Your task to perform on an android device: What's on the menu at McDonalds? Image 0: 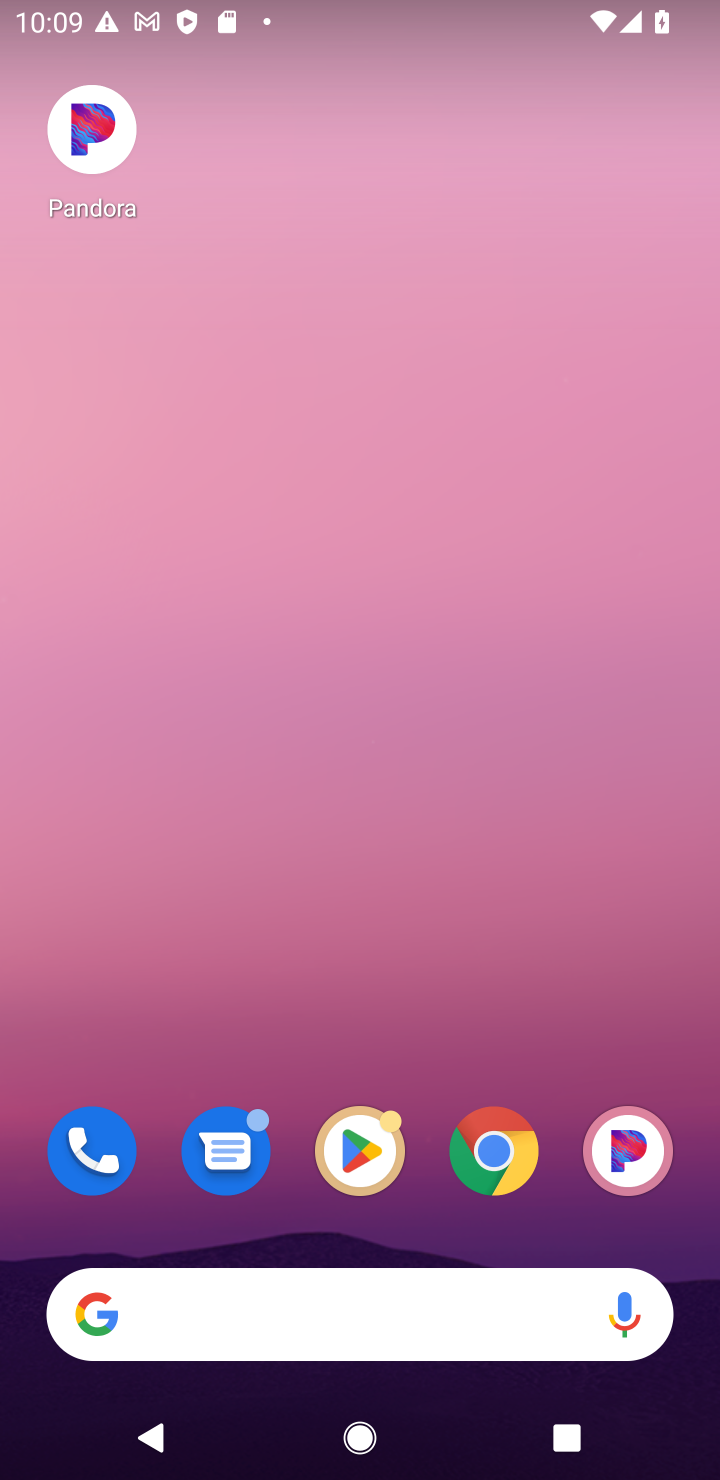
Step 0: click (487, 1174)
Your task to perform on an android device: What's on the menu at McDonalds? Image 1: 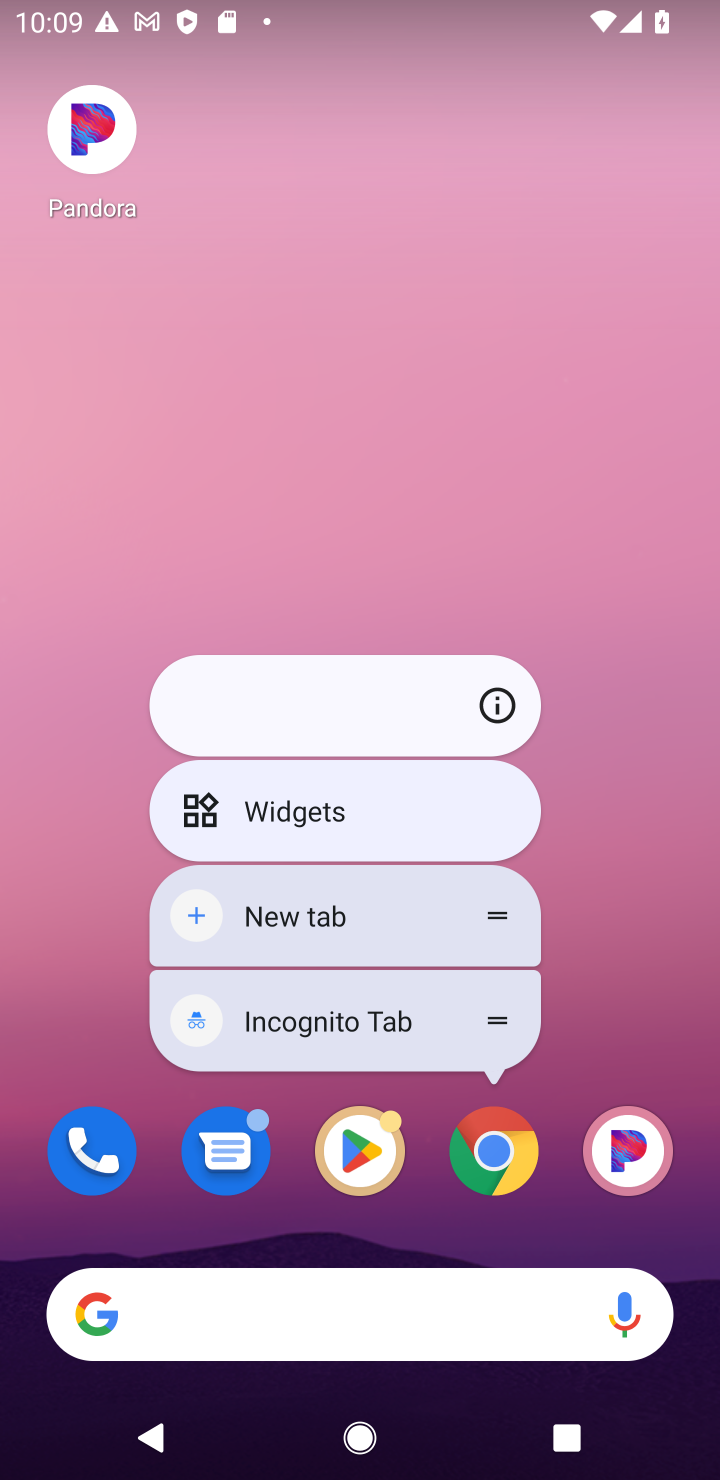
Step 1: click (479, 1131)
Your task to perform on an android device: What's on the menu at McDonalds? Image 2: 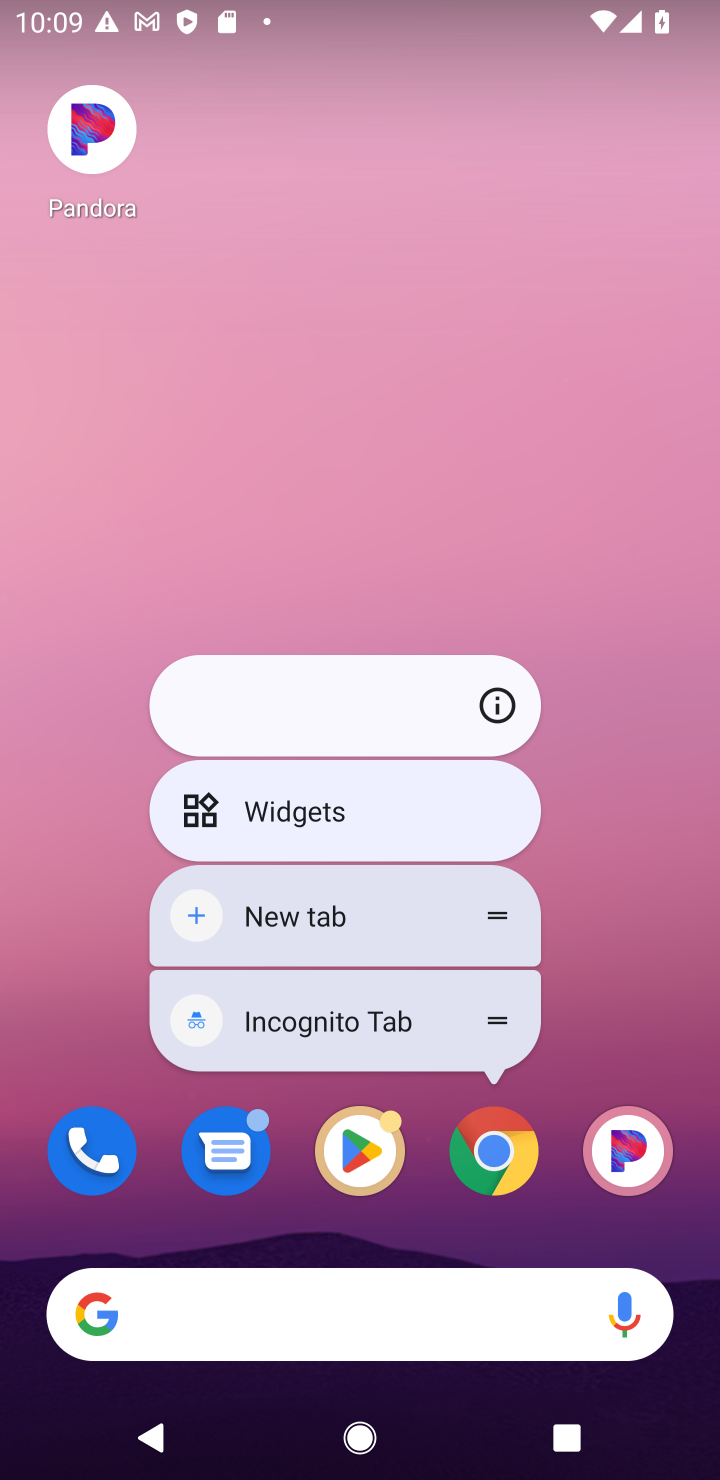
Step 2: click (482, 1140)
Your task to perform on an android device: What's on the menu at McDonalds? Image 3: 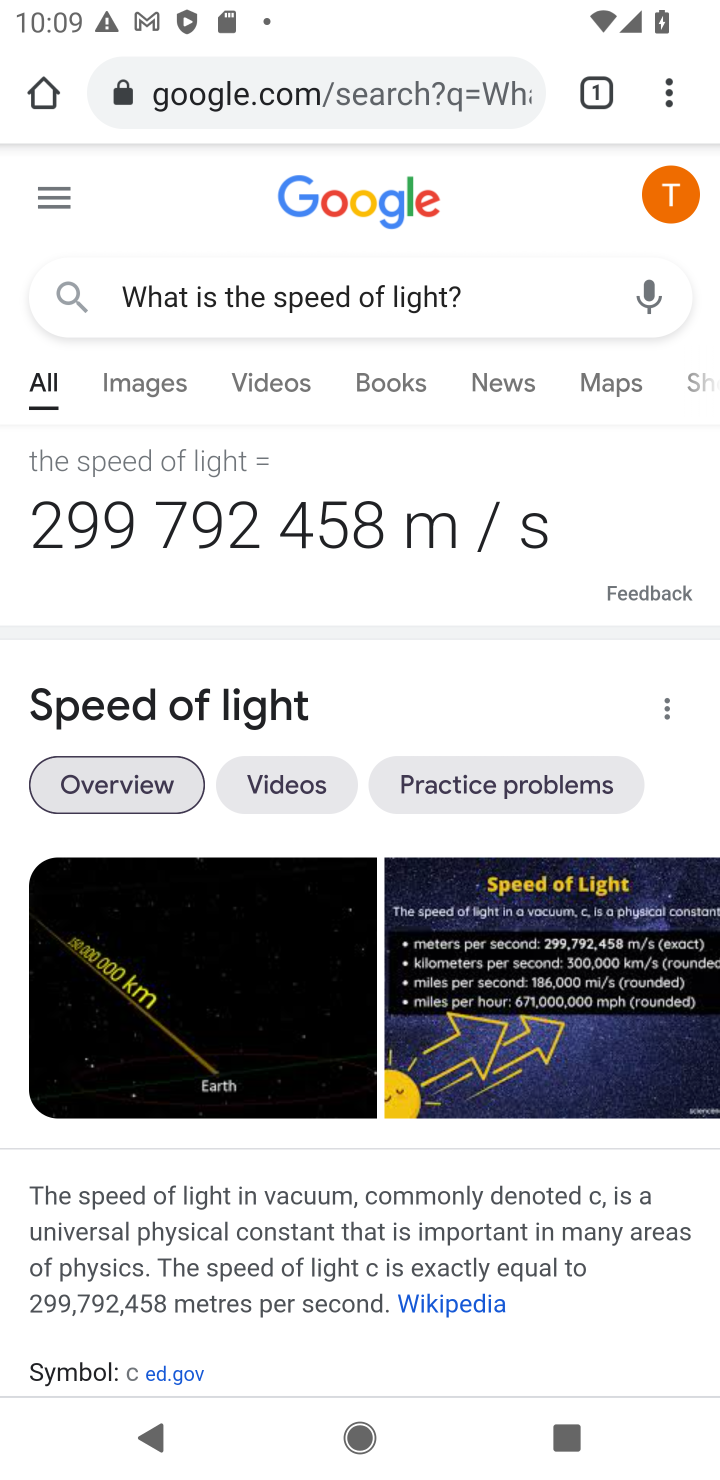
Step 3: click (251, 96)
Your task to perform on an android device: What's on the menu at McDonalds? Image 4: 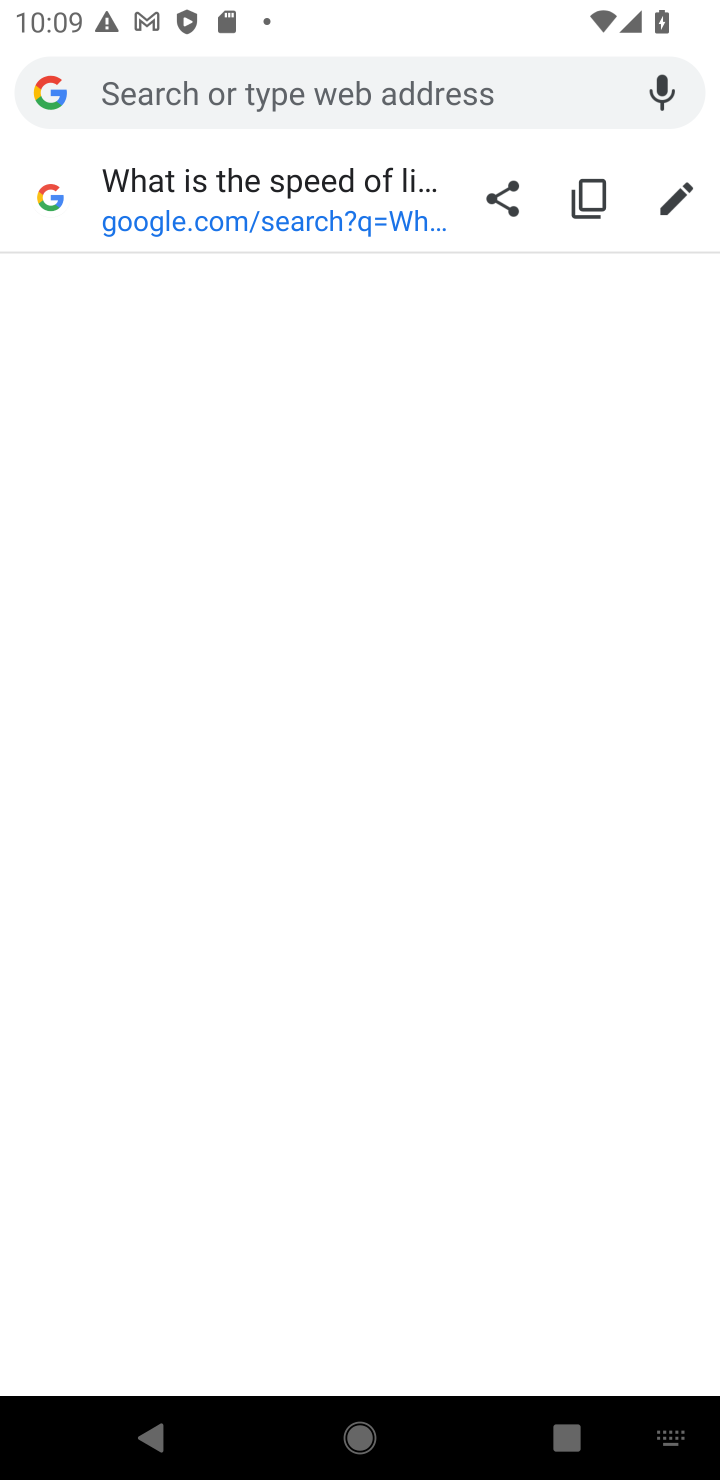
Step 4: type "What's on the menu at McDonalds?"
Your task to perform on an android device: What's on the menu at McDonalds? Image 5: 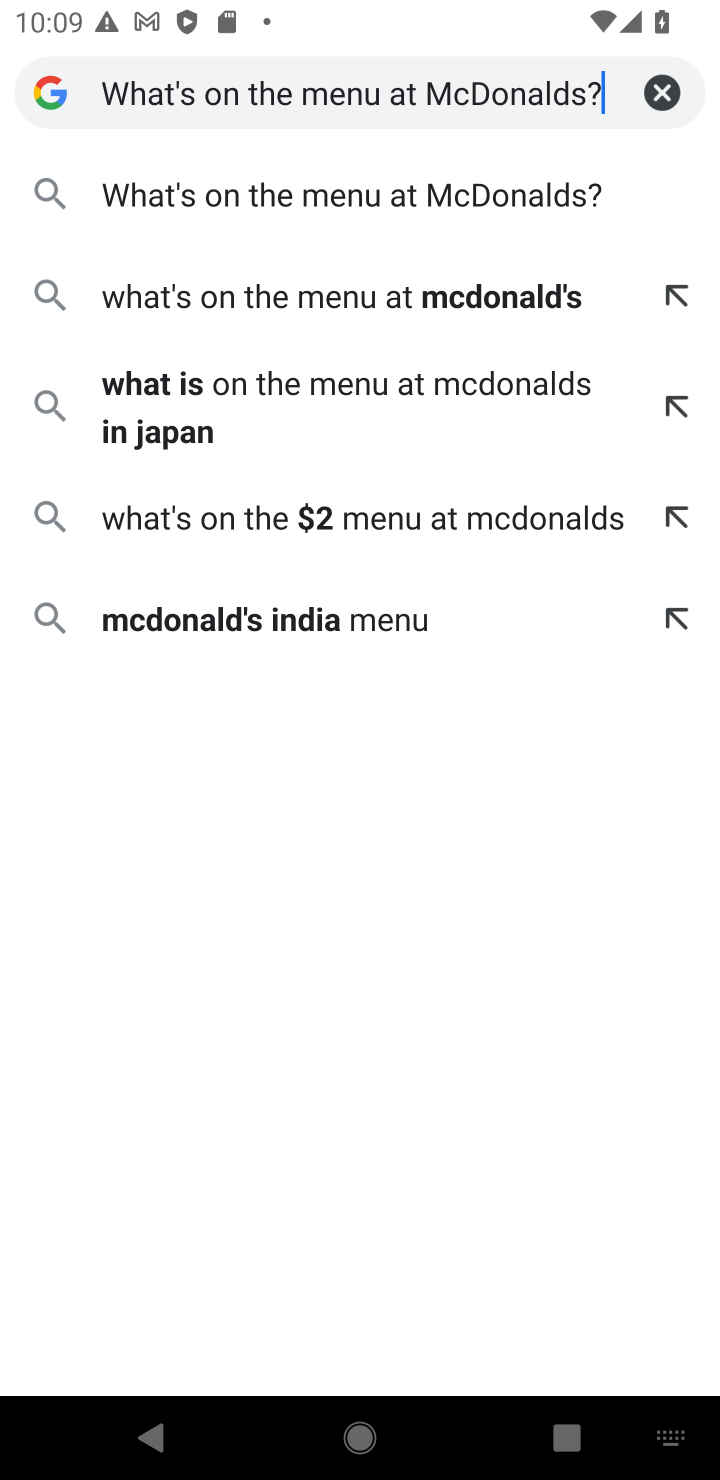
Step 5: click (260, 181)
Your task to perform on an android device: What's on the menu at McDonalds? Image 6: 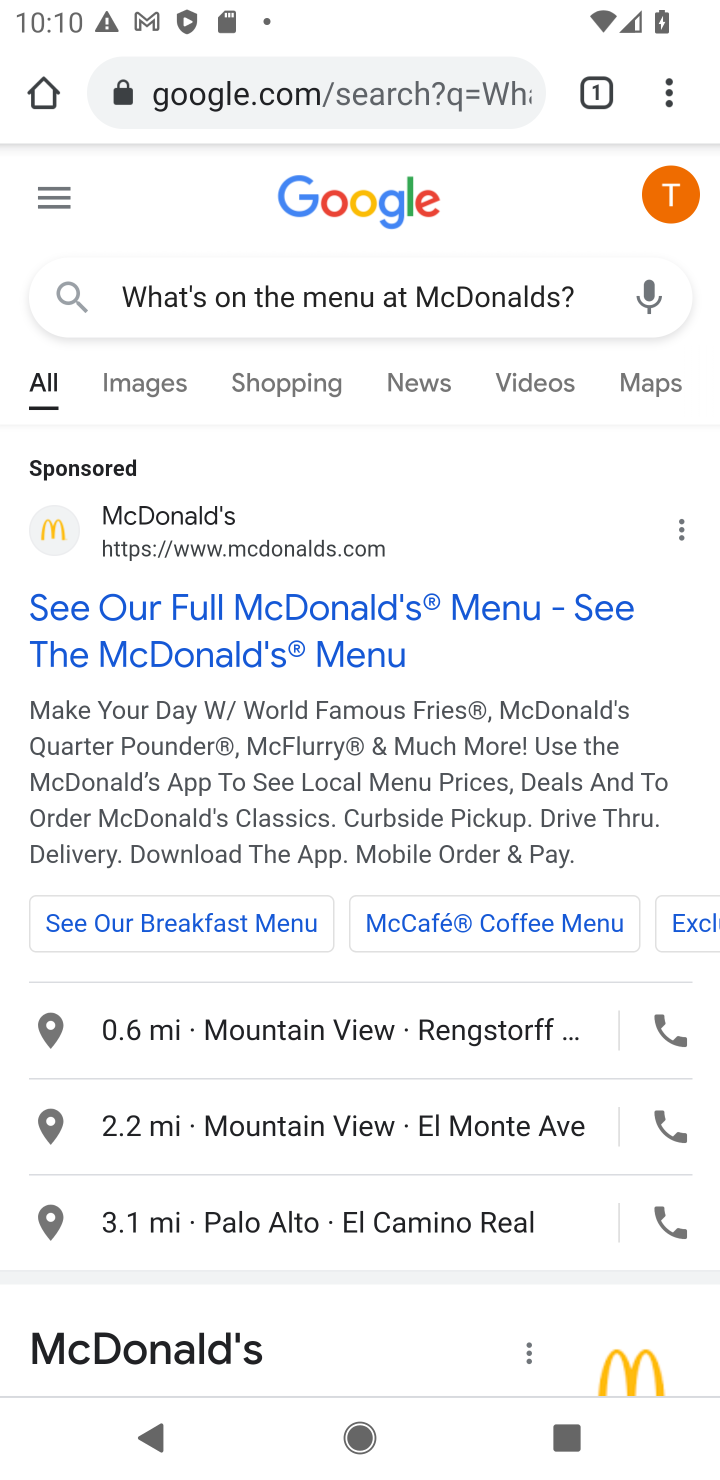
Step 6: click (316, 617)
Your task to perform on an android device: What's on the menu at McDonalds? Image 7: 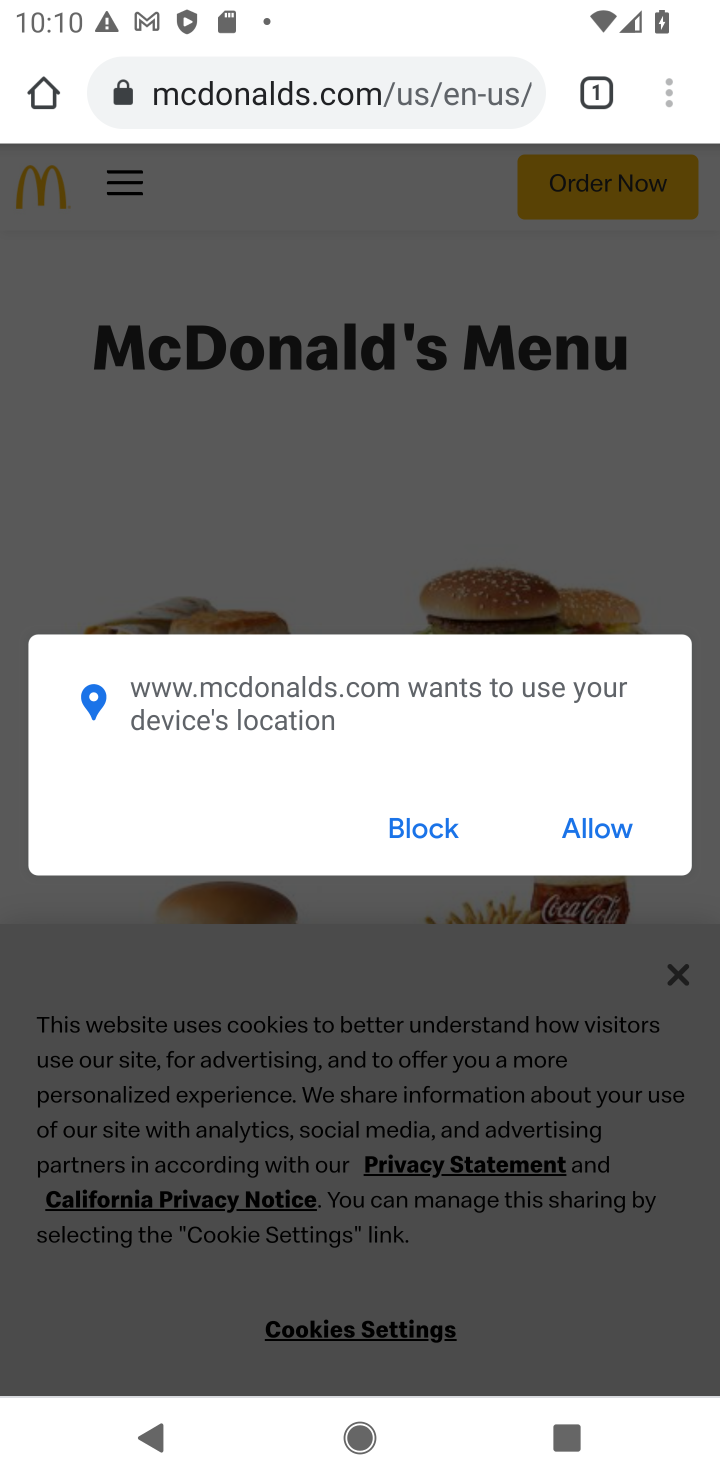
Step 7: click (573, 830)
Your task to perform on an android device: What's on the menu at McDonalds? Image 8: 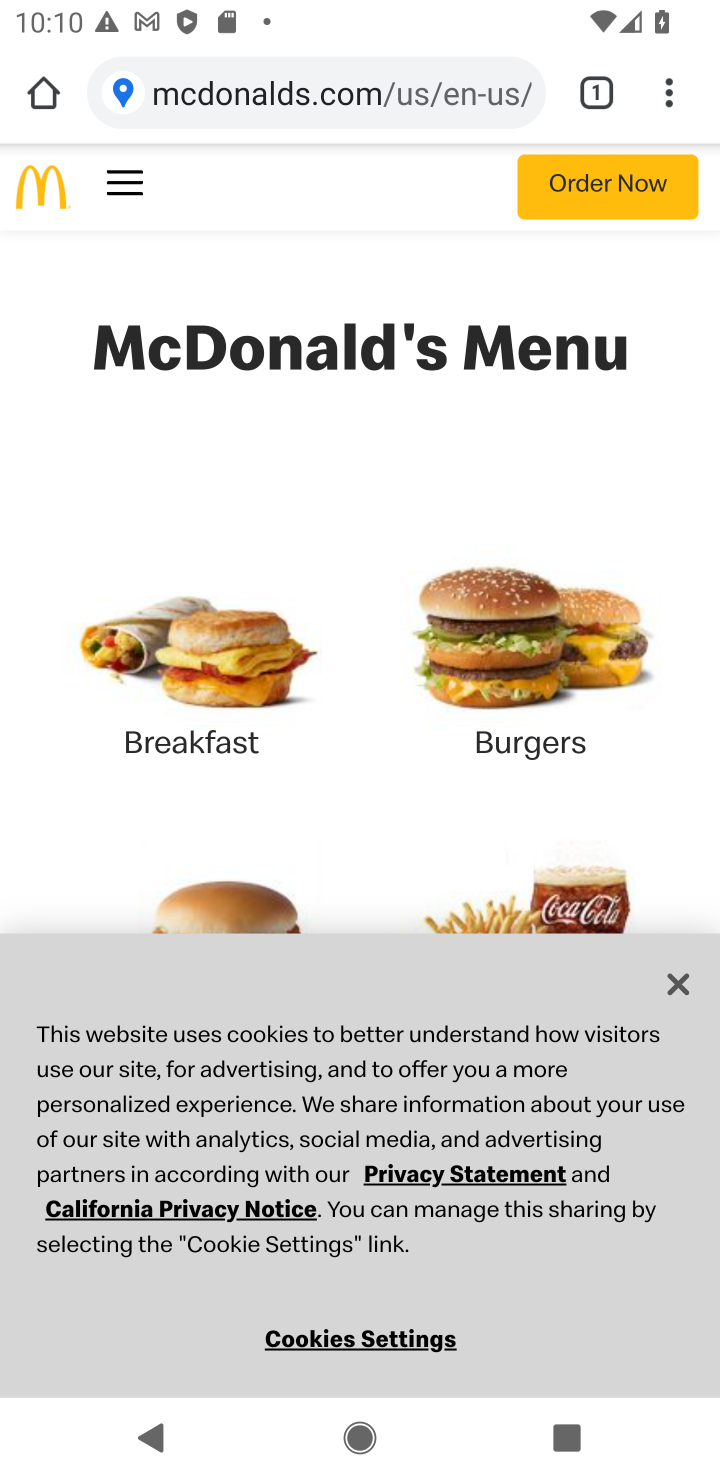
Step 8: click (669, 952)
Your task to perform on an android device: What's on the menu at McDonalds? Image 9: 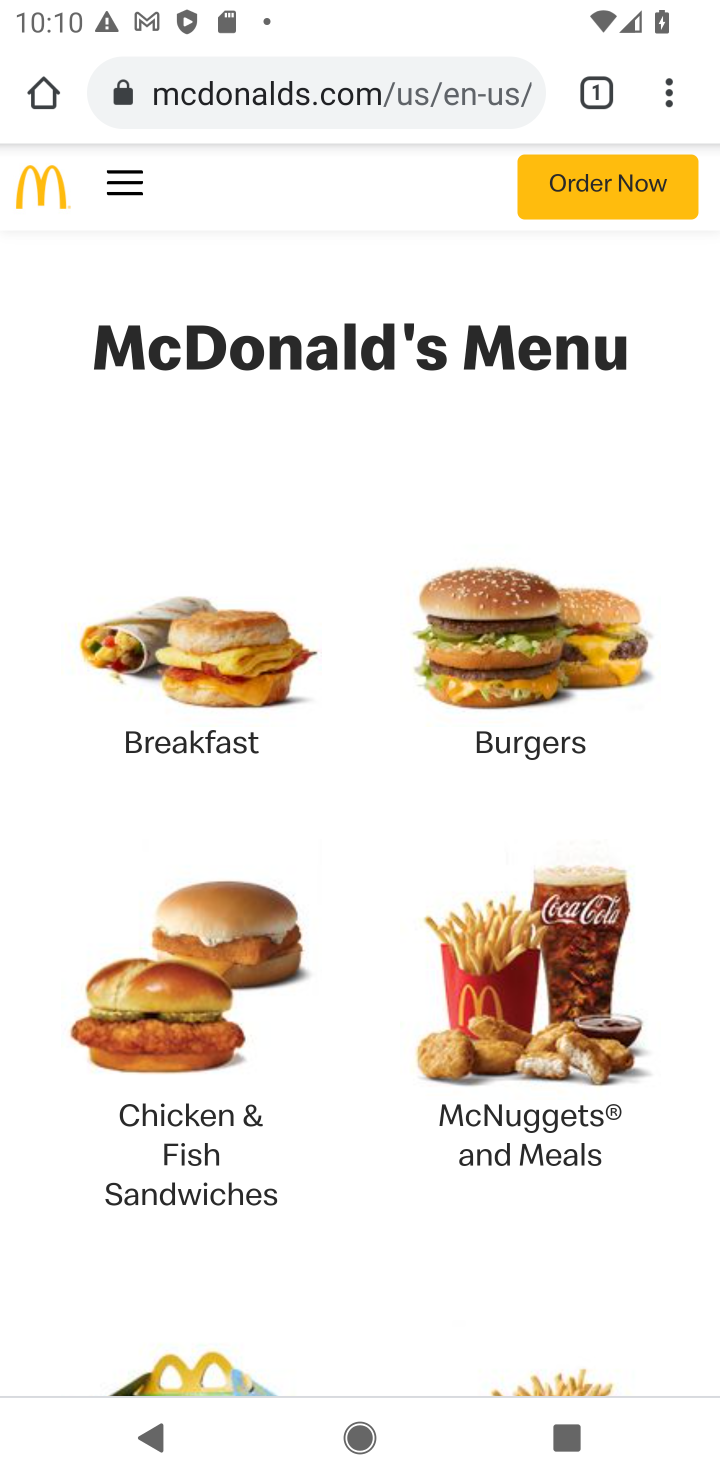
Step 9: task complete